Your task to perform on an android device: turn pop-ups off in chrome Image 0: 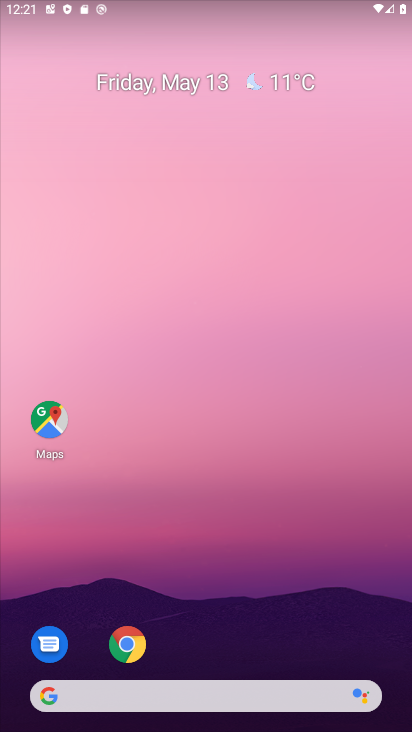
Step 0: click (126, 642)
Your task to perform on an android device: turn pop-ups off in chrome Image 1: 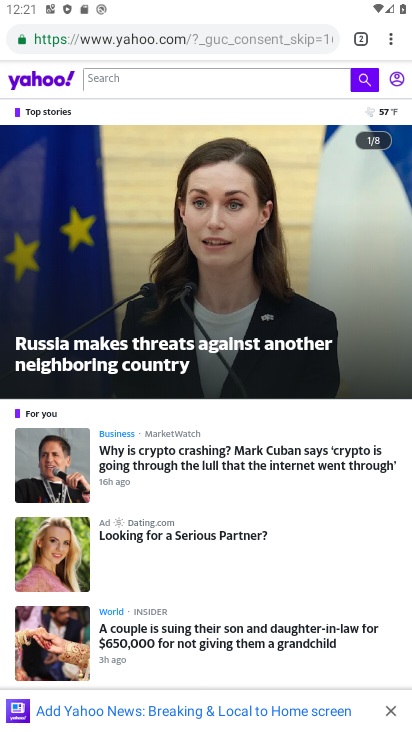
Step 1: click (390, 41)
Your task to perform on an android device: turn pop-ups off in chrome Image 2: 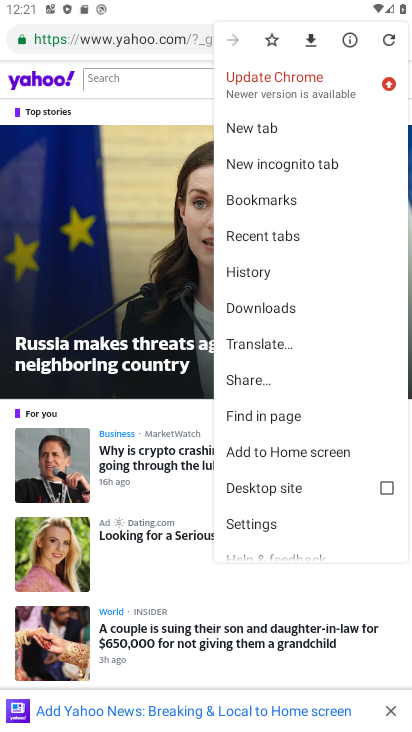
Step 2: click (233, 518)
Your task to perform on an android device: turn pop-ups off in chrome Image 3: 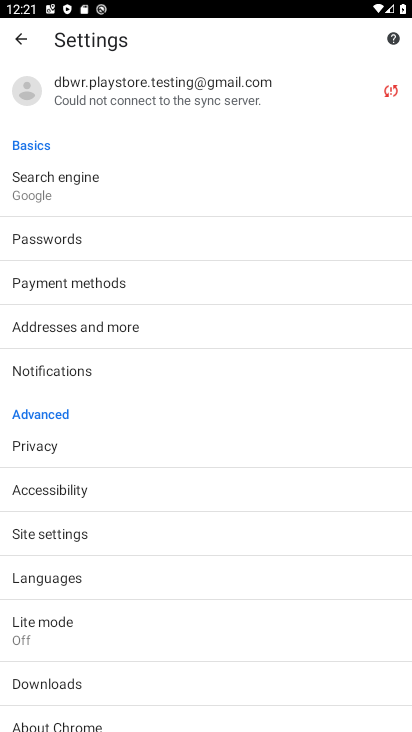
Step 3: click (60, 532)
Your task to perform on an android device: turn pop-ups off in chrome Image 4: 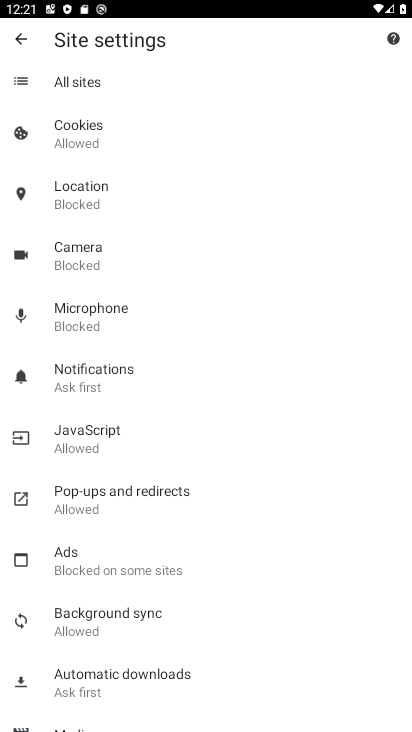
Step 4: click (73, 494)
Your task to perform on an android device: turn pop-ups off in chrome Image 5: 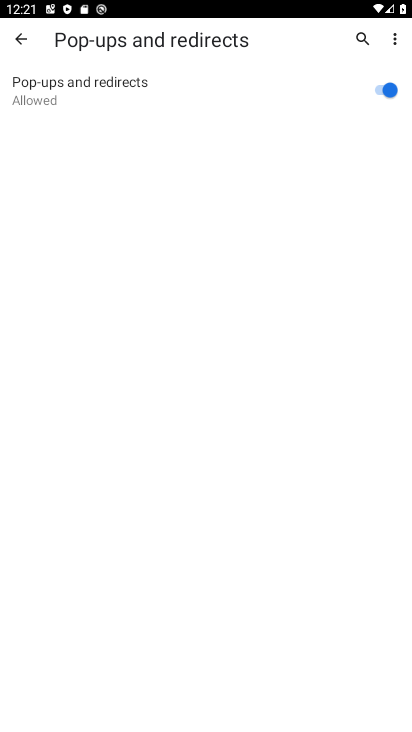
Step 5: click (382, 89)
Your task to perform on an android device: turn pop-ups off in chrome Image 6: 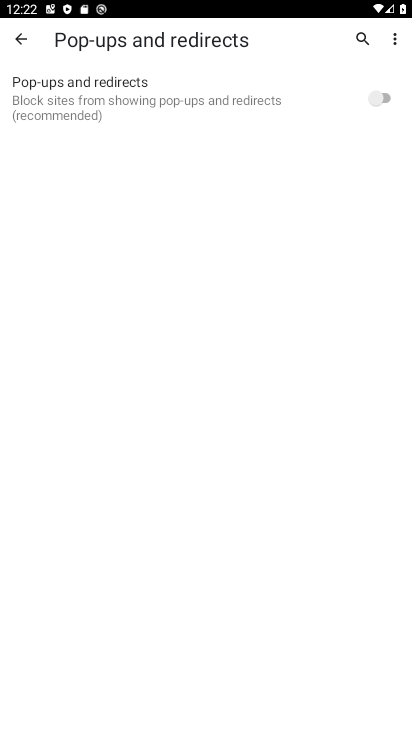
Step 6: task complete